Your task to perform on an android device: find snoozed emails in the gmail app Image 0: 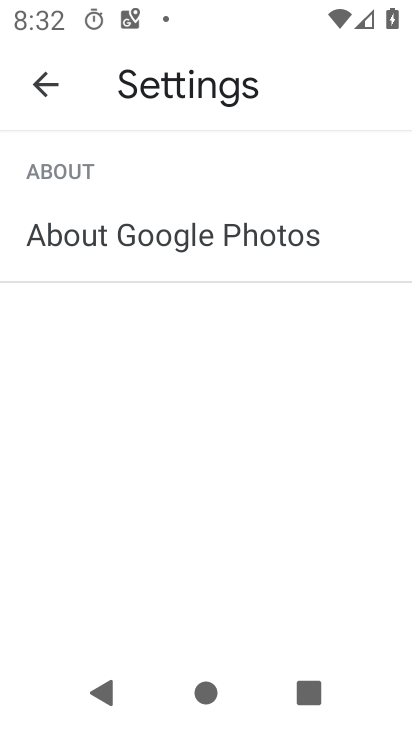
Step 0: press home button
Your task to perform on an android device: find snoozed emails in the gmail app Image 1: 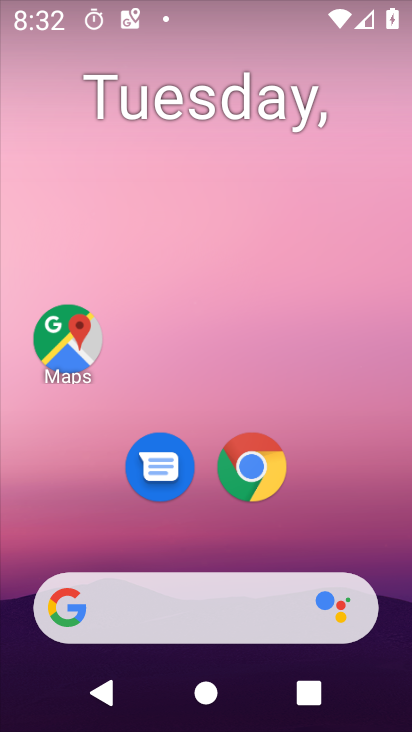
Step 1: drag from (396, 546) to (346, 170)
Your task to perform on an android device: find snoozed emails in the gmail app Image 2: 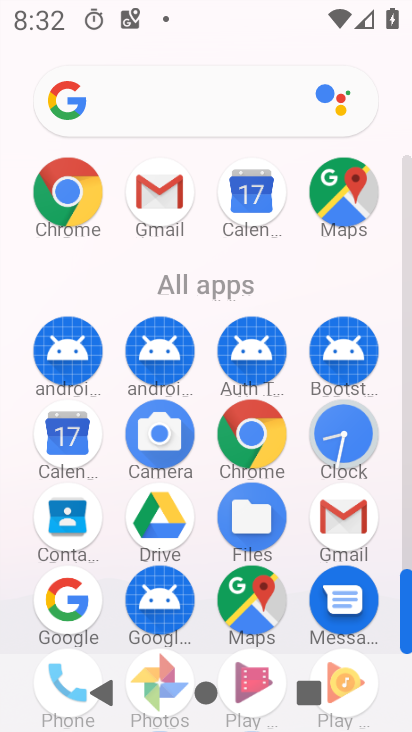
Step 2: click (168, 206)
Your task to perform on an android device: find snoozed emails in the gmail app Image 3: 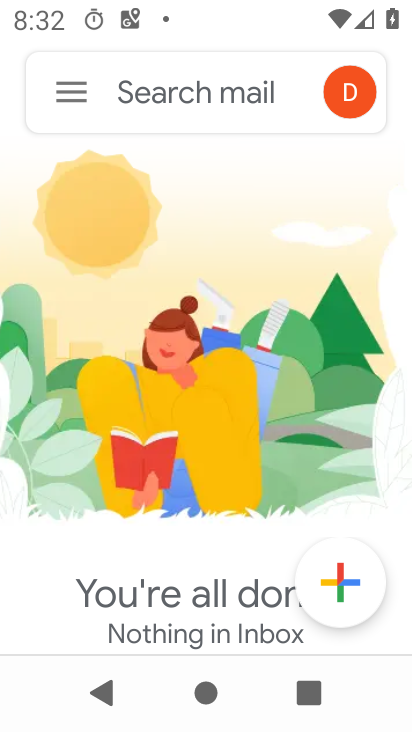
Step 3: click (89, 102)
Your task to perform on an android device: find snoozed emails in the gmail app Image 4: 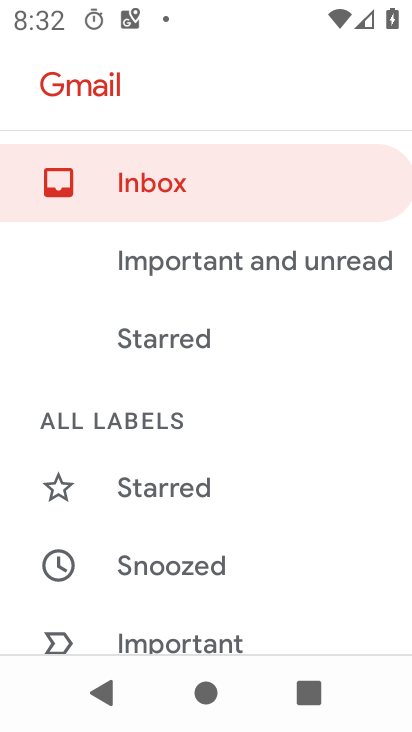
Step 4: click (250, 572)
Your task to perform on an android device: find snoozed emails in the gmail app Image 5: 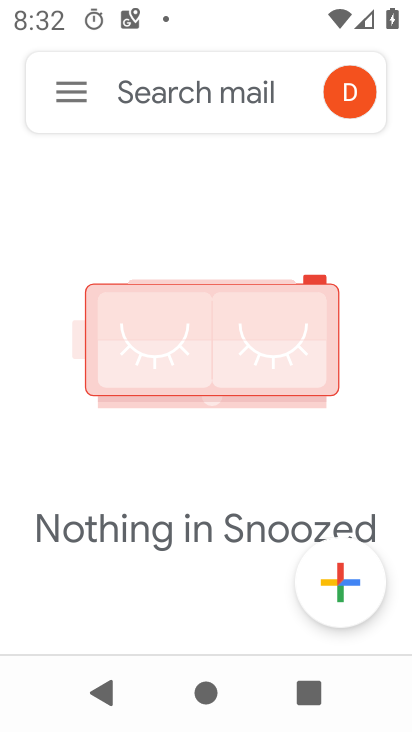
Step 5: task complete